Your task to perform on an android device: Open calendar and show me the first week of next month Image 0: 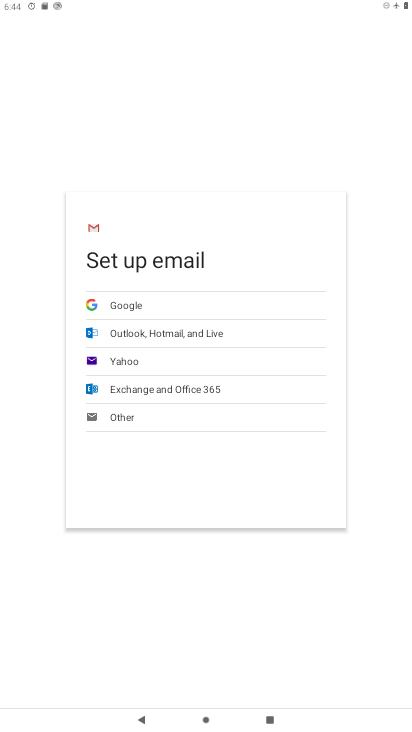
Step 0: press home button
Your task to perform on an android device: Open calendar and show me the first week of next month Image 1: 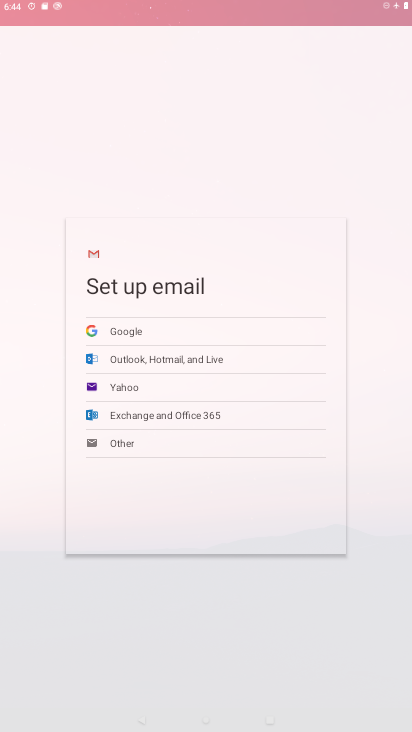
Step 1: drag from (378, 661) to (240, 2)
Your task to perform on an android device: Open calendar and show me the first week of next month Image 2: 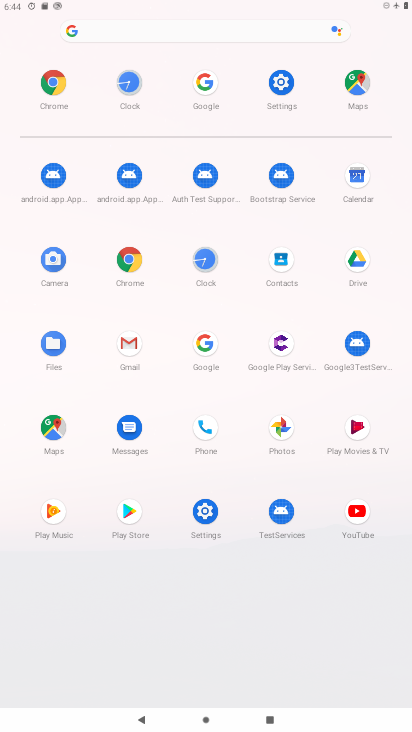
Step 2: click (369, 179)
Your task to perform on an android device: Open calendar and show me the first week of next month Image 3: 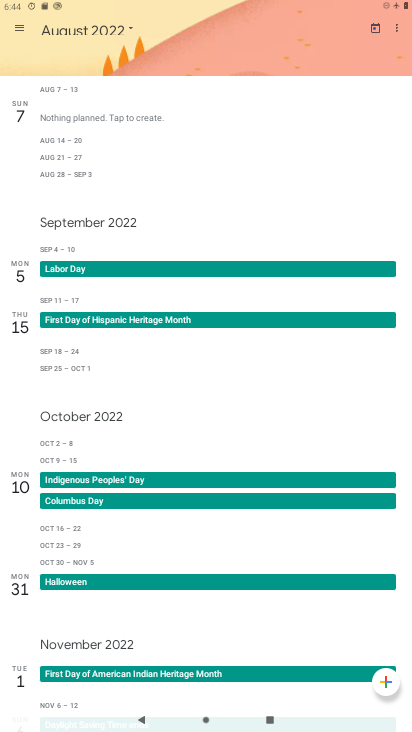
Step 3: click (100, 29)
Your task to perform on an android device: Open calendar and show me the first week of next month Image 4: 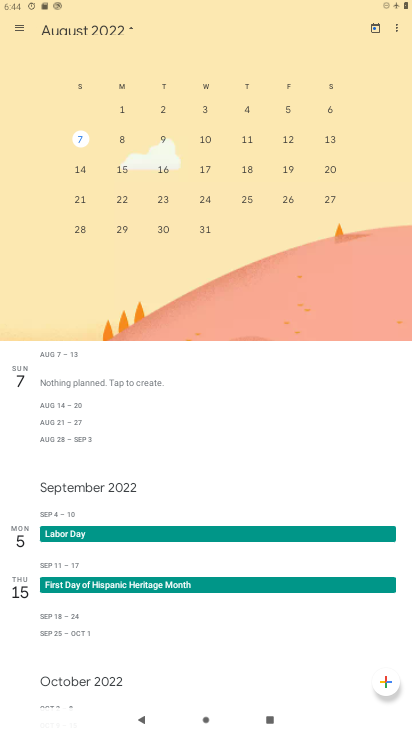
Step 4: drag from (336, 141) to (4, 157)
Your task to perform on an android device: Open calendar and show me the first week of next month Image 5: 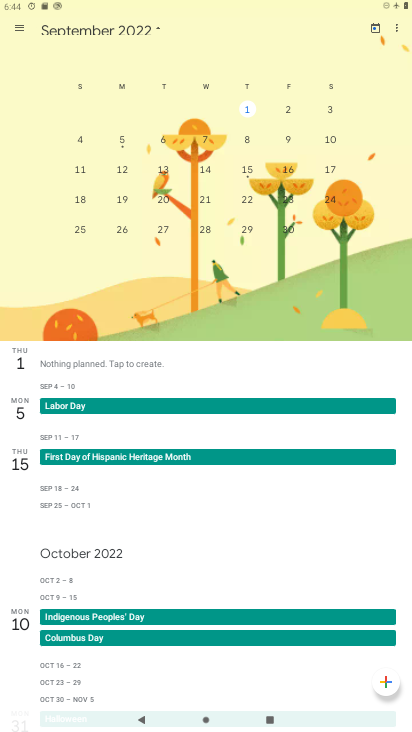
Step 5: click (75, 137)
Your task to perform on an android device: Open calendar and show me the first week of next month Image 6: 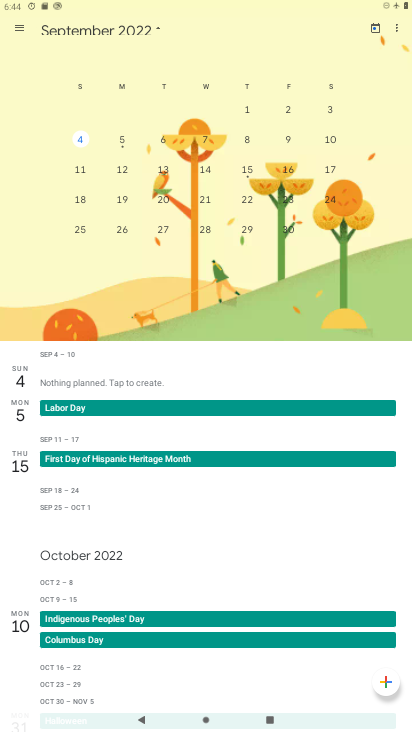
Step 6: task complete